Your task to perform on an android device: toggle wifi Image 0: 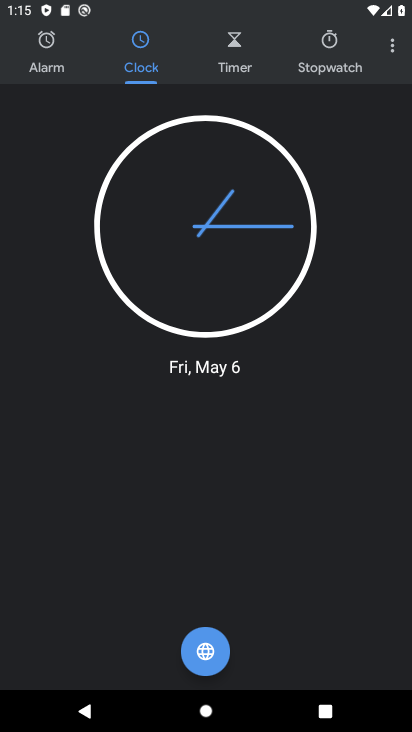
Step 0: press home button
Your task to perform on an android device: toggle wifi Image 1: 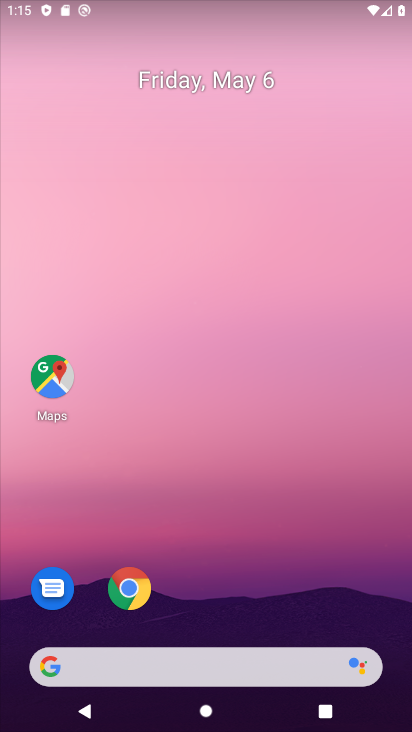
Step 1: drag from (354, 592) to (397, 136)
Your task to perform on an android device: toggle wifi Image 2: 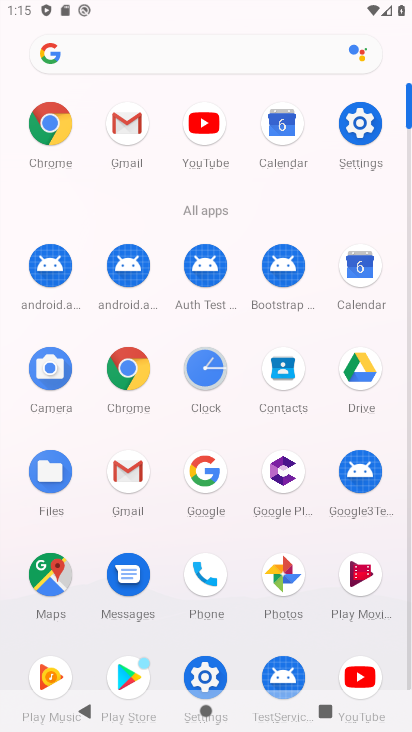
Step 2: click (365, 113)
Your task to perform on an android device: toggle wifi Image 3: 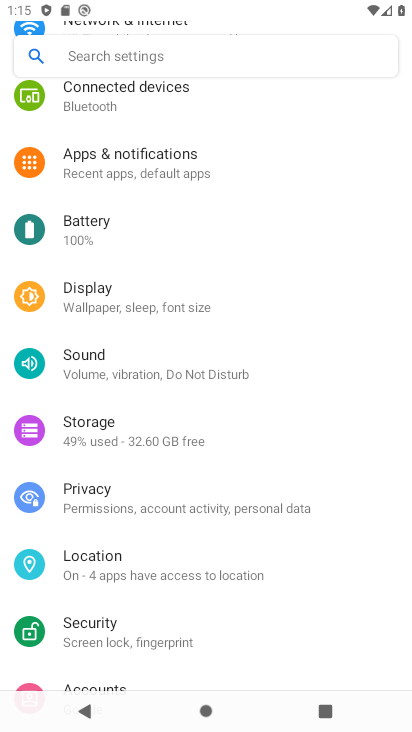
Step 3: drag from (351, 189) to (308, 630)
Your task to perform on an android device: toggle wifi Image 4: 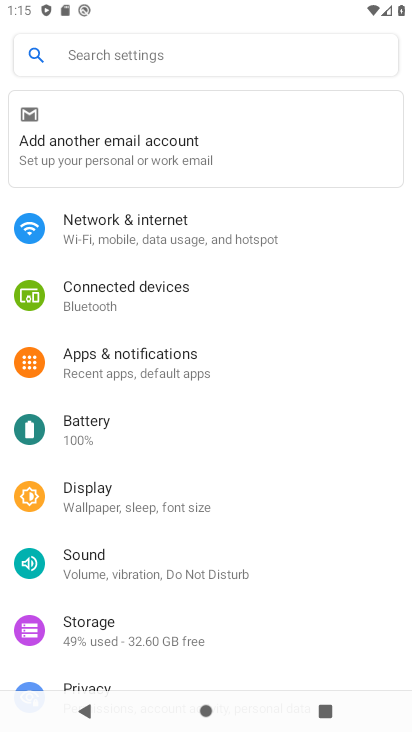
Step 4: click (188, 225)
Your task to perform on an android device: toggle wifi Image 5: 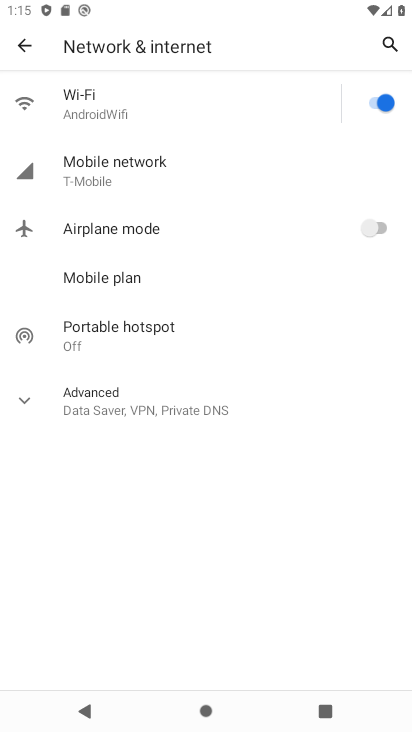
Step 5: click (377, 98)
Your task to perform on an android device: toggle wifi Image 6: 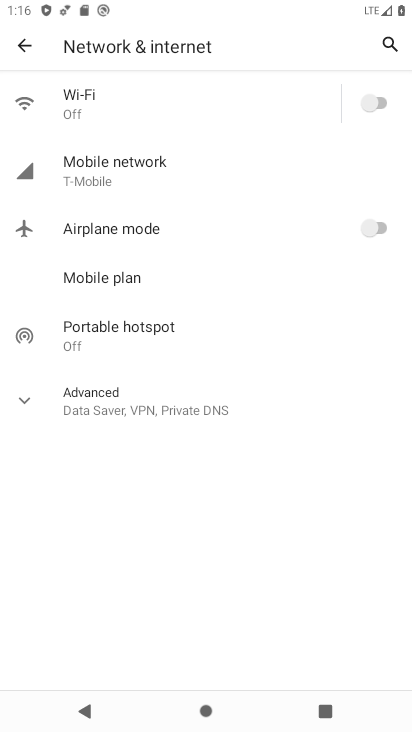
Step 6: task complete